Your task to perform on an android device: Clear all items from cart on newegg.com. Image 0: 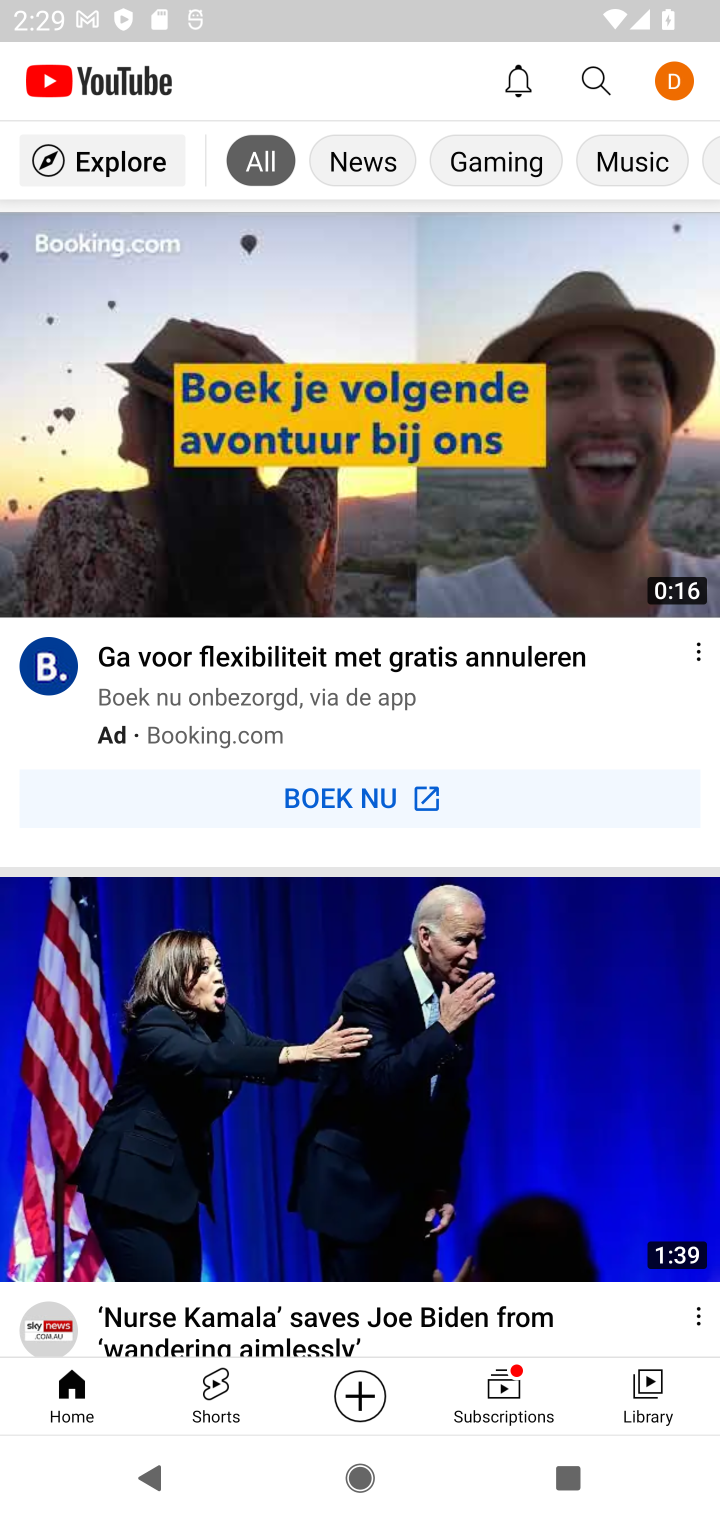
Step 0: press home button
Your task to perform on an android device: Clear all items from cart on newegg.com. Image 1: 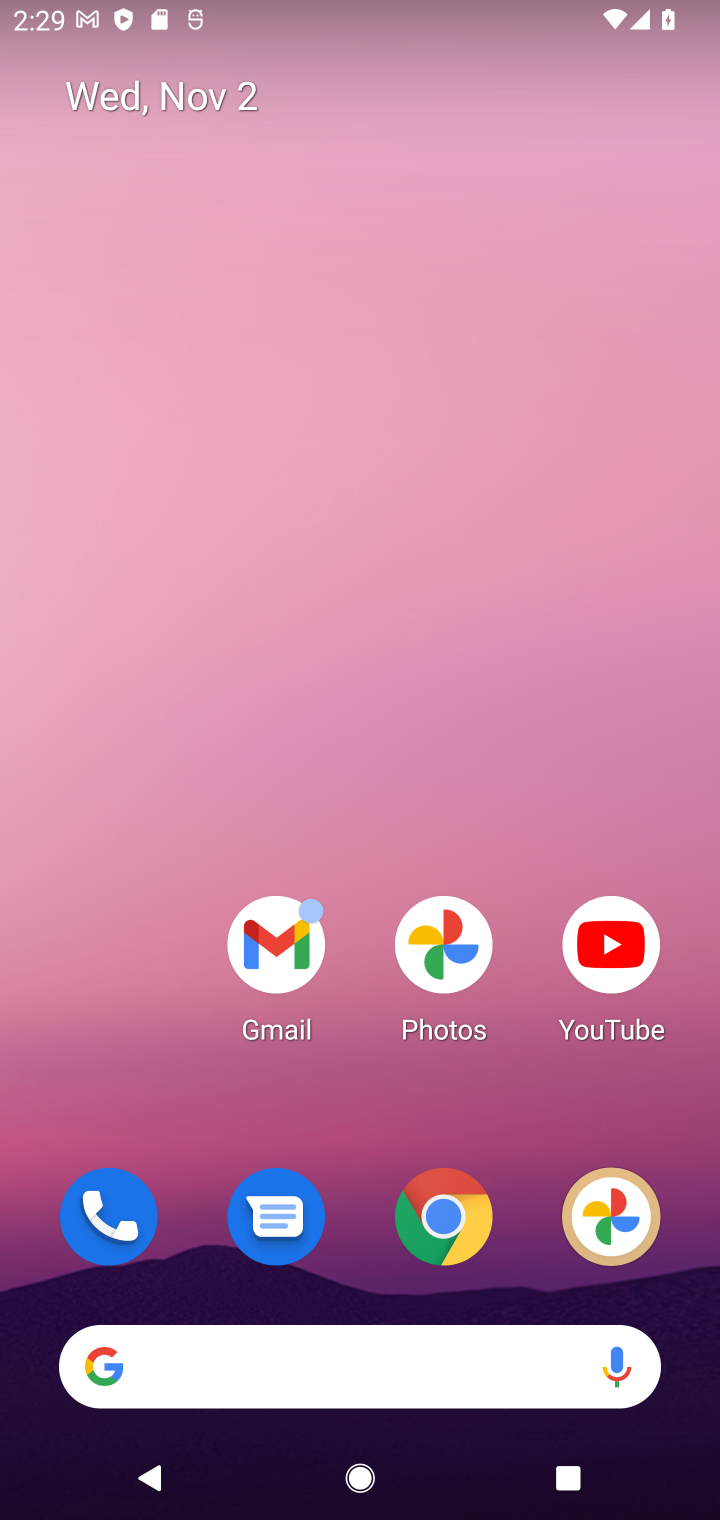
Step 1: click (444, 1215)
Your task to perform on an android device: Clear all items from cart on newegg.com. Image 2: 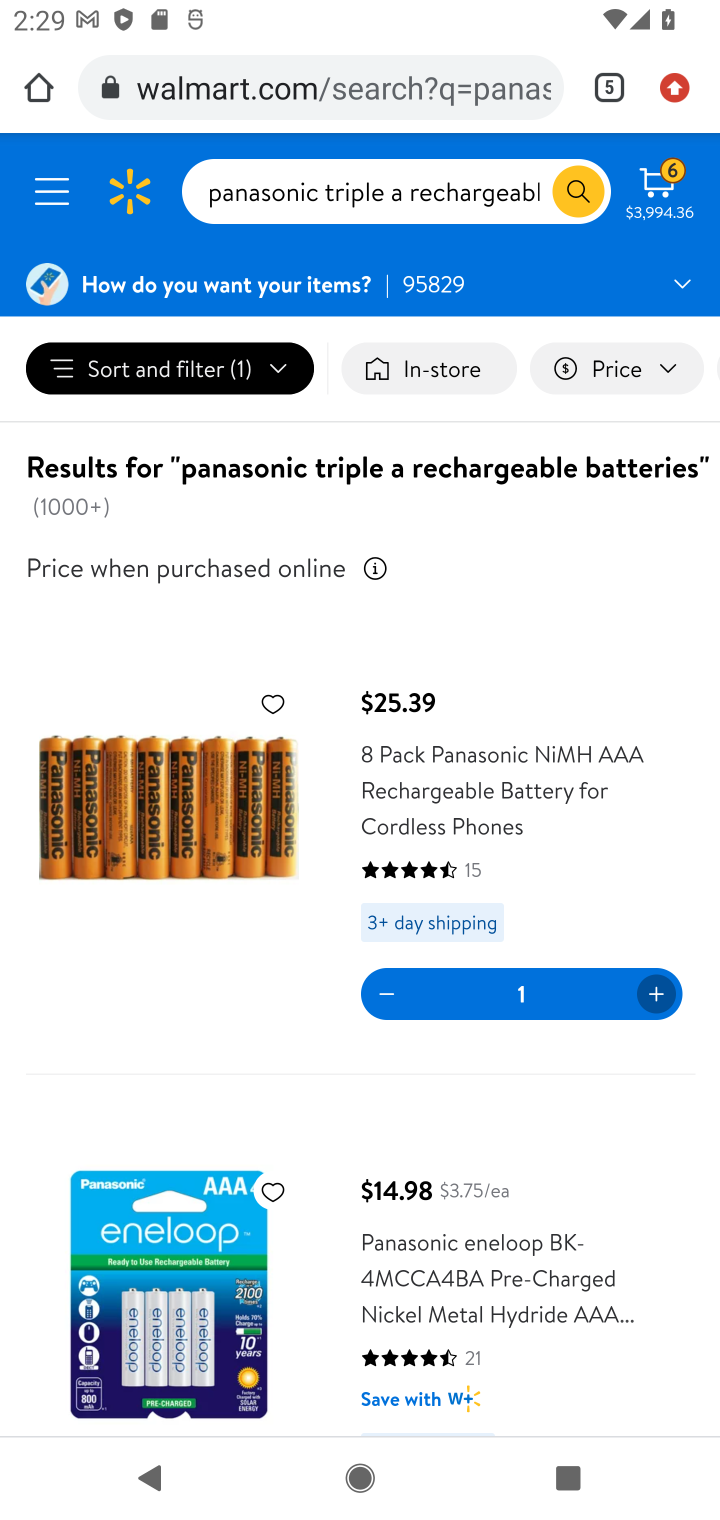
Step 2: click (600, 91)
Your task to perform on an android device: Clear all items from cart on newegg.com. Image 3: 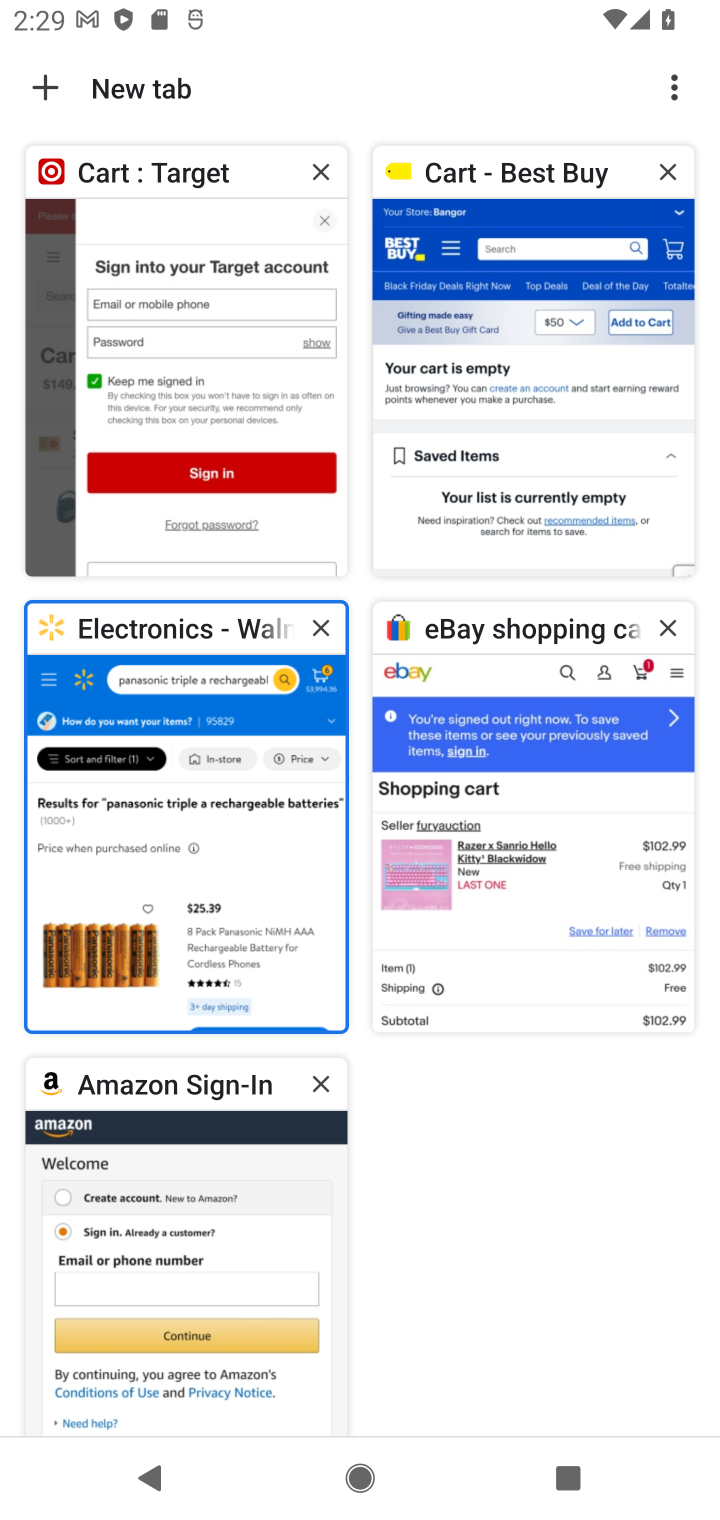
Step 3: click (46, 89)
Your task to perform on an android device: Clear all items from cart on newegg.com. Image 4: 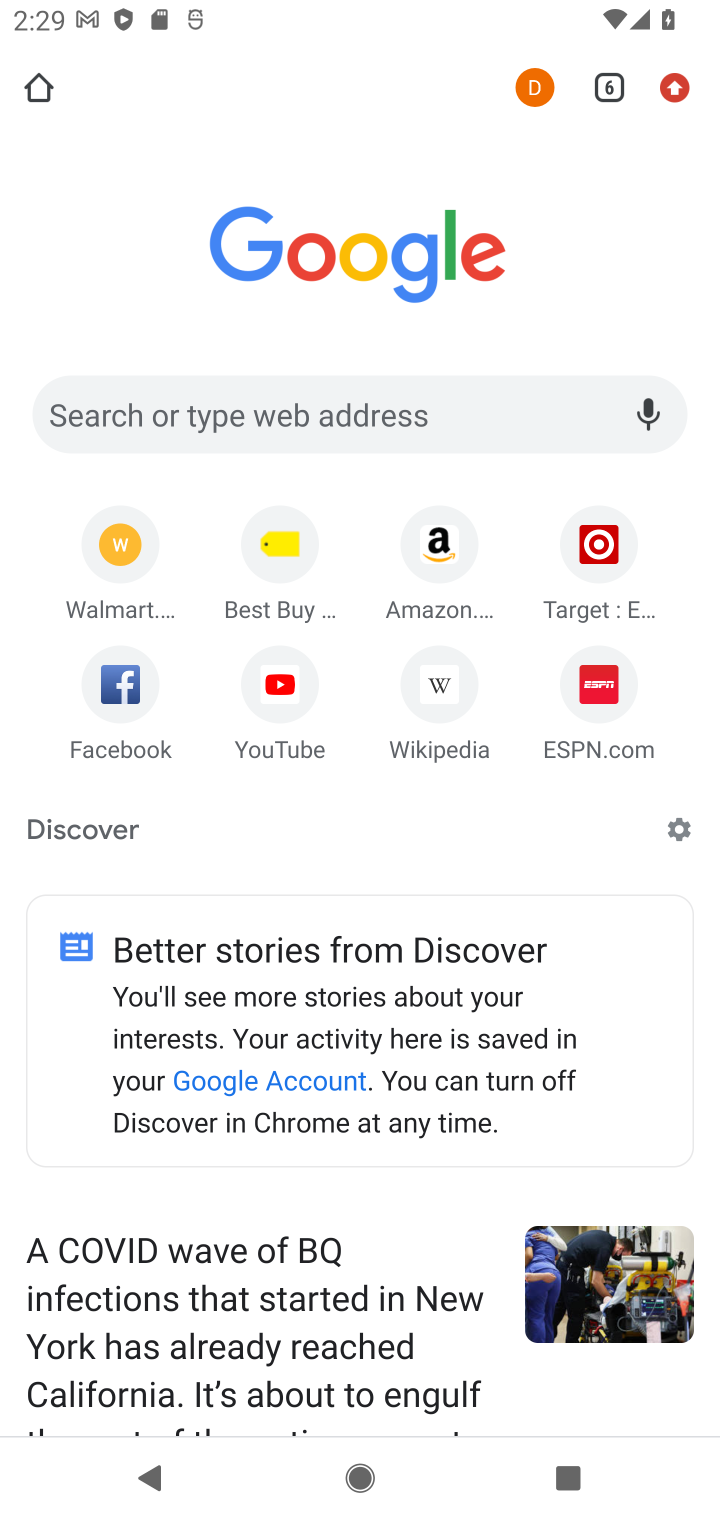
Step 4: click (355, 392)
Your task to perform on an android device: Clear all items from cart on newegg.com. Image 5: 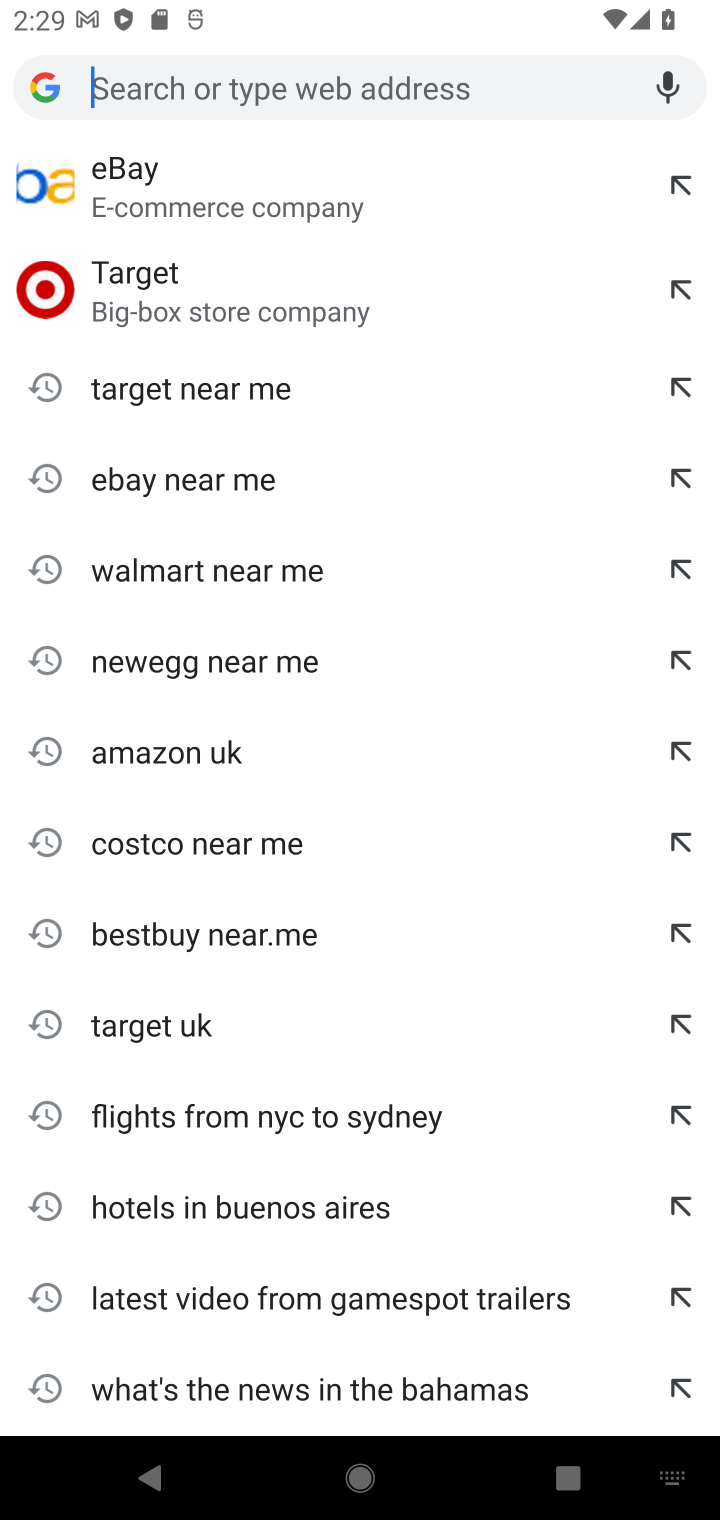
Step 5: type "newegg"
Your task to perform on an android device: Clear all items from cart on newegg.com. Image 6: 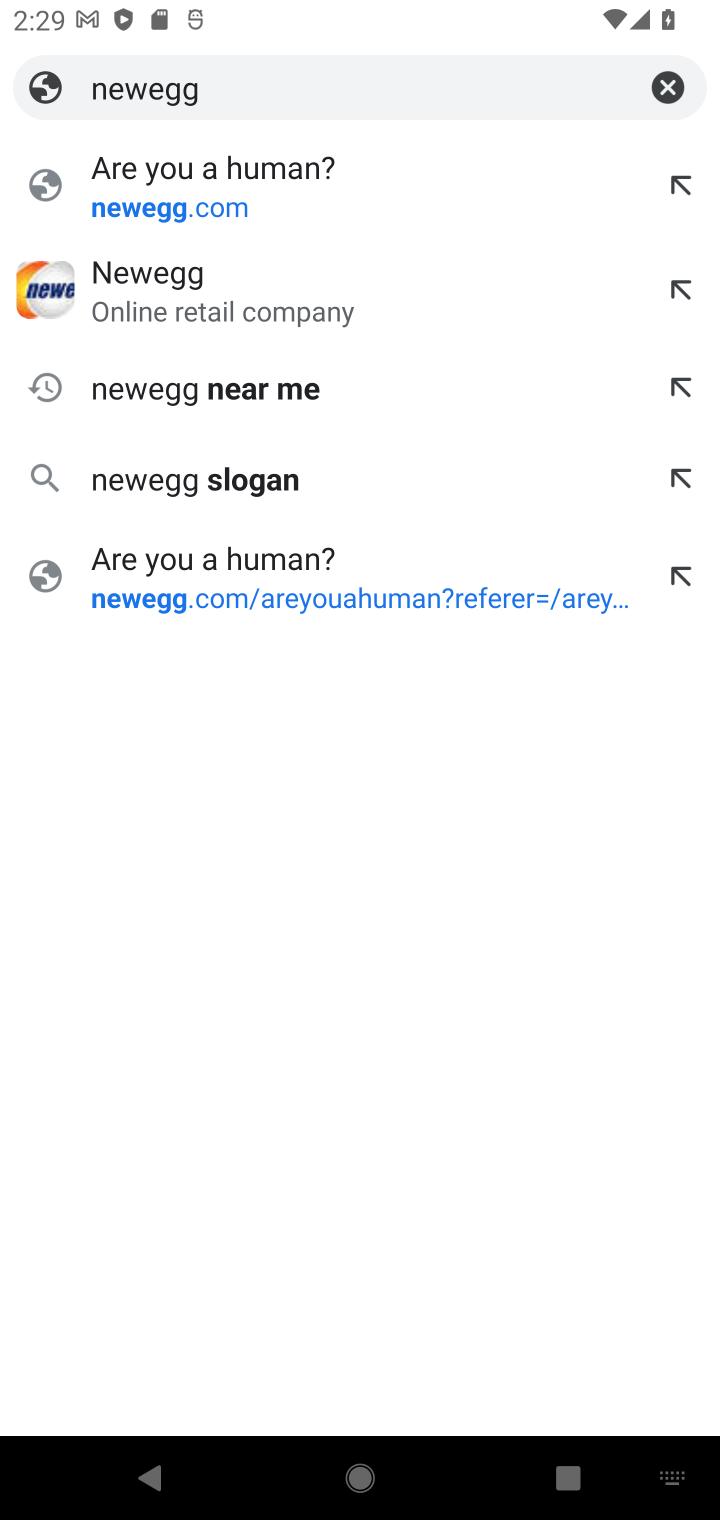
Step 6: click (86, 284)
Your task to perform on an android device: Clear all items from cart on newegg.com. Image 7: 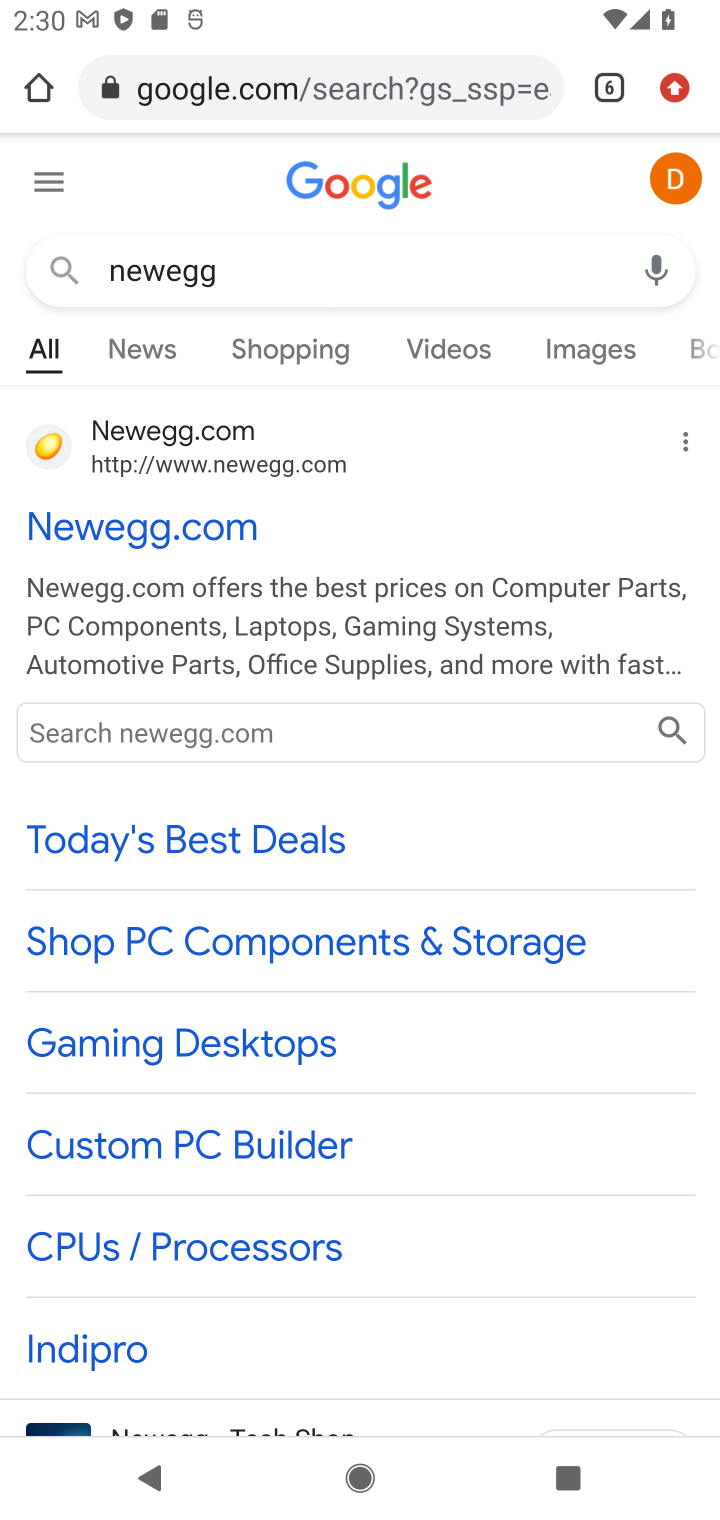
Step 7: click (99, 523)
Your task to perform on an android device: Clear all items from cart on newegg.com. Image 8: 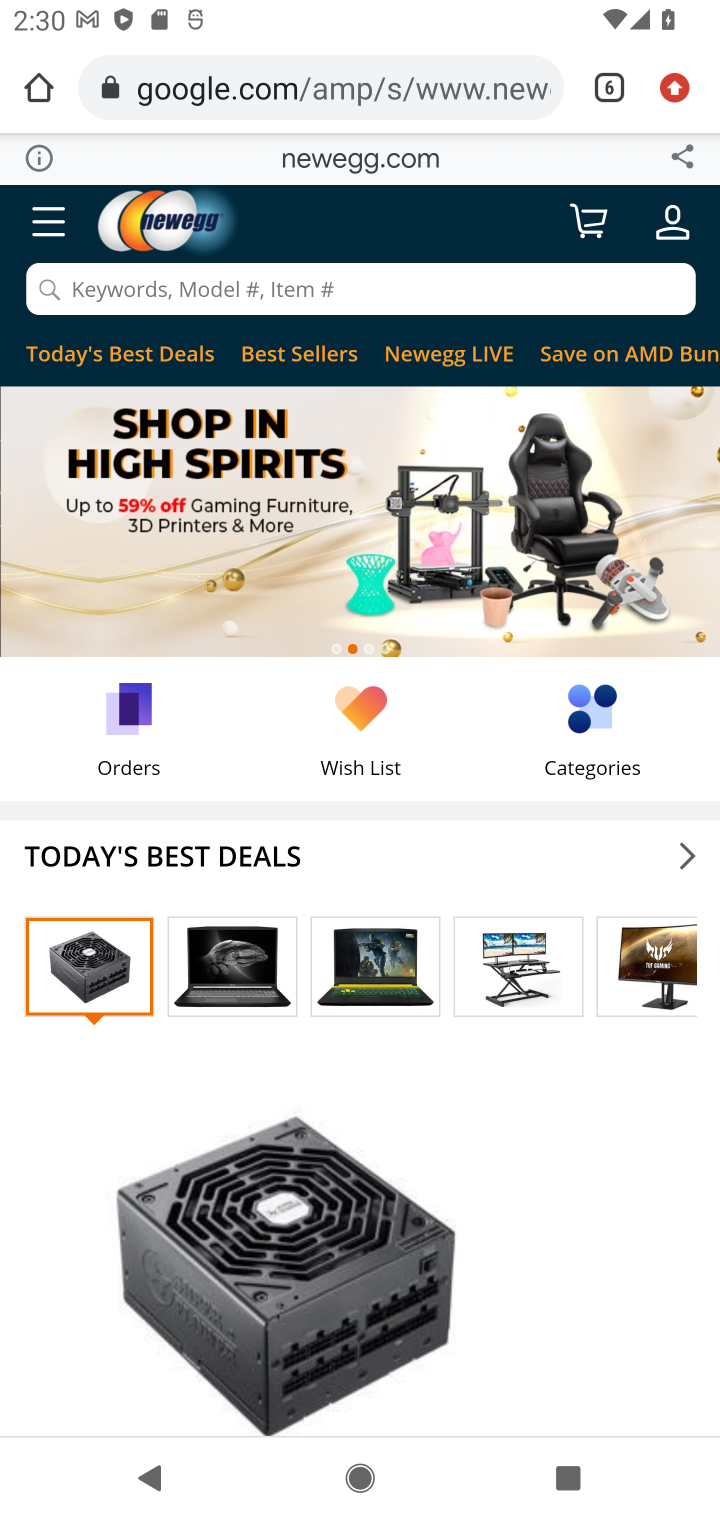
Step 8: task complete